Your task to perform on an android device: toggle pop-ups in chrome Image 0: 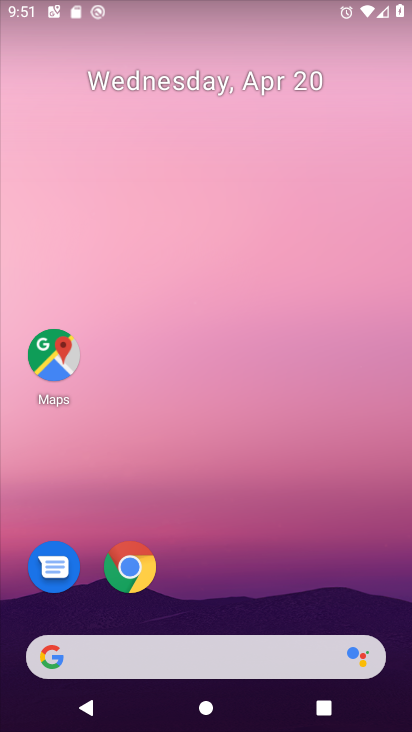
Step 0: drag from (350, 584) to (315, 183)
Your task to perform on an android device: toggle pop-ups in chrome Image 1: 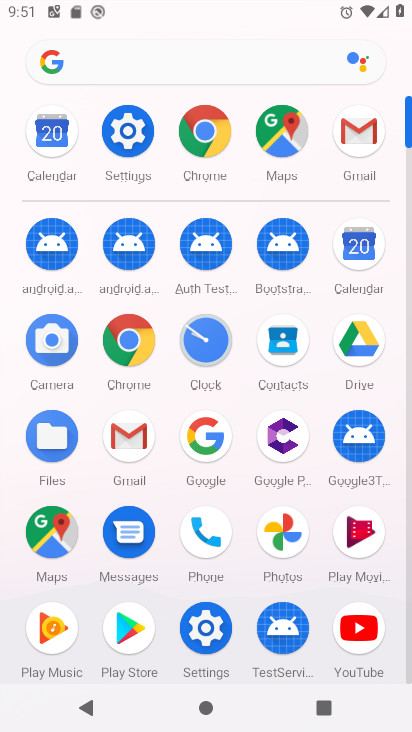
Step 1: click (138, 350)
Your task to perform on an android device: toggle pop-ups in chrome Image 2: 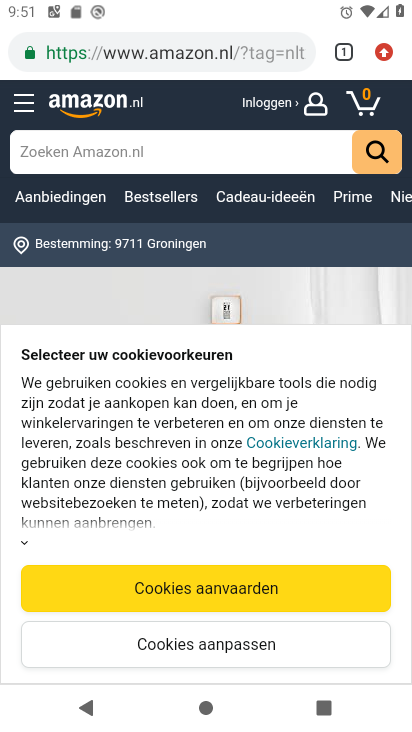
Step 2: click (384, 48)
Your task to perform on an android device: toggle pop-ups in chrome Image 3: 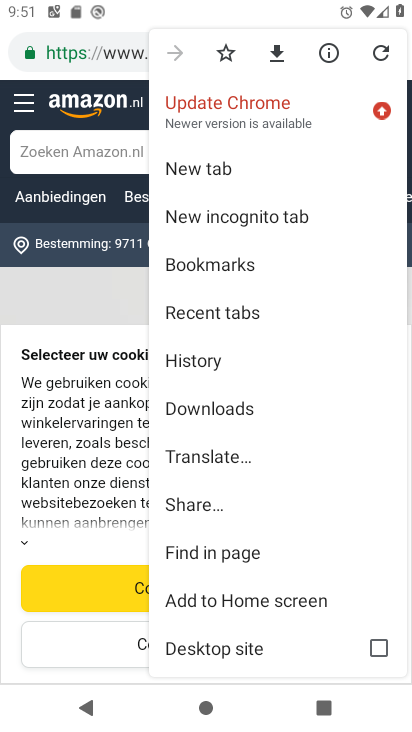
Step 3: drag from (351, 565) to (345, 362)
Your task to perform on an android device: toggle pop-ups in chrome Image 4: 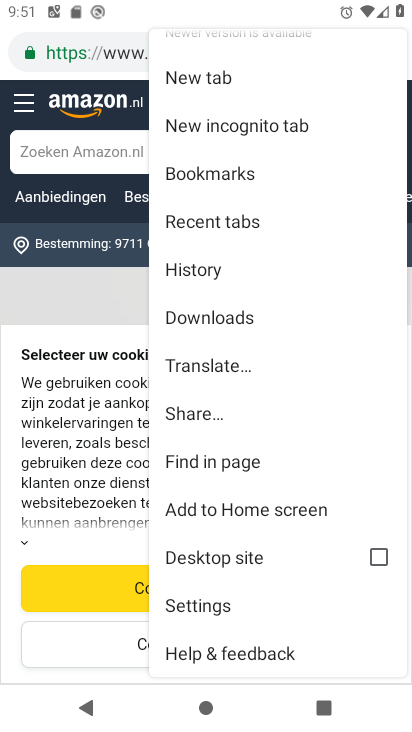
Step 4: click (230, 612)
Your task to perform on an android device: toggle pop-ups in chrome Image 5: 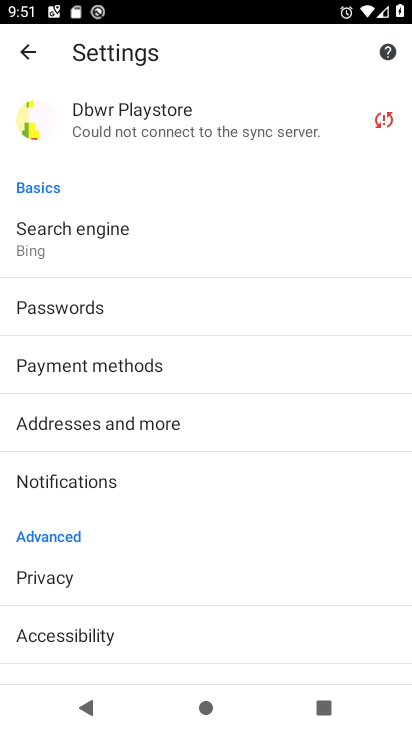
Step 5: drag from (279, 567) to (286, 412)
Your task to perform on an android device: toggle pop-ups in chrome Image 6: 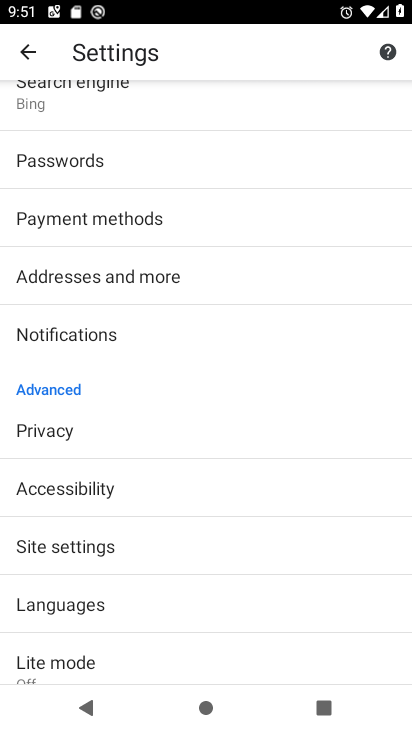
Step 6: drag from (284, 568) to (302, 437)
Your task to perform on an android device: toggle pop-ups in chrome Image 7: 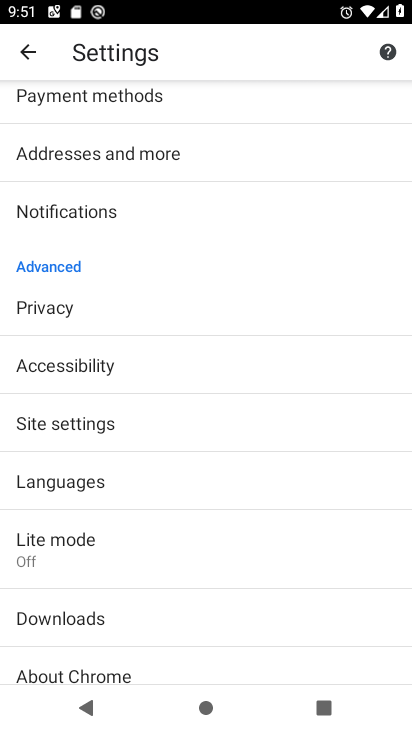
Step 7: drag from (309, 539) to (319, 472)
Your task to perform on an android device: toggle pop-ups in chrome Image 8: 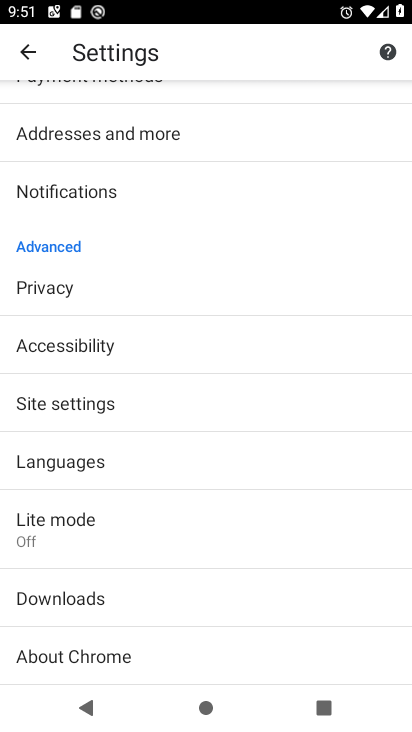
Step 8: drag from (287, 554) to (305, 331)
Your task to perform on an android device: toggle pop-ups in chrome Image 9: 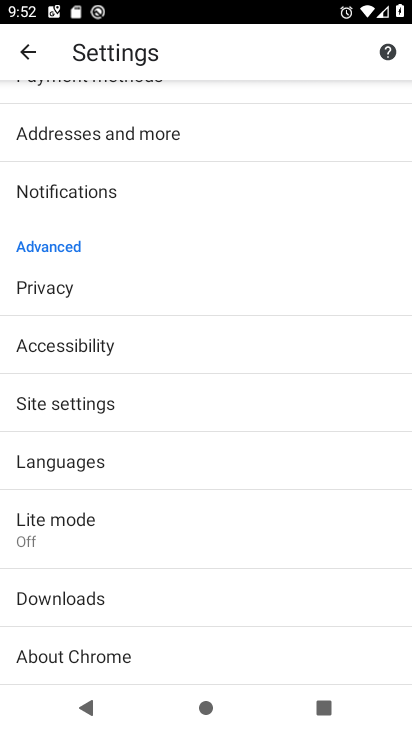
Step 9: click (219, 406)
Your task to perform on an android device: toggle pop-ups in chrome Image 10: 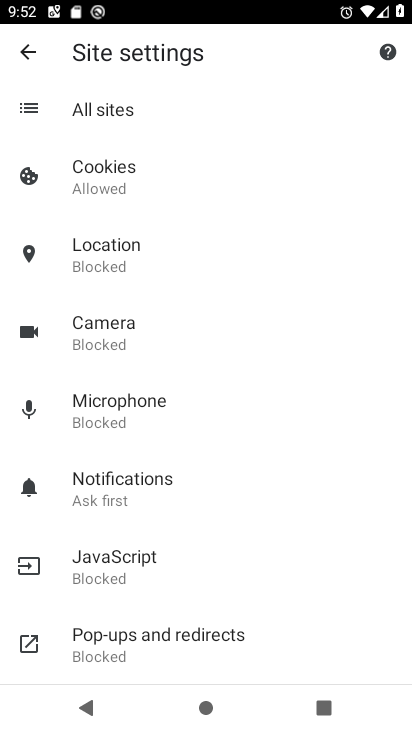
Step 10: drag from (283, 503) to (289, 317)
Your task to perform on an android device: toggle pop-ups in chrome Image 11: 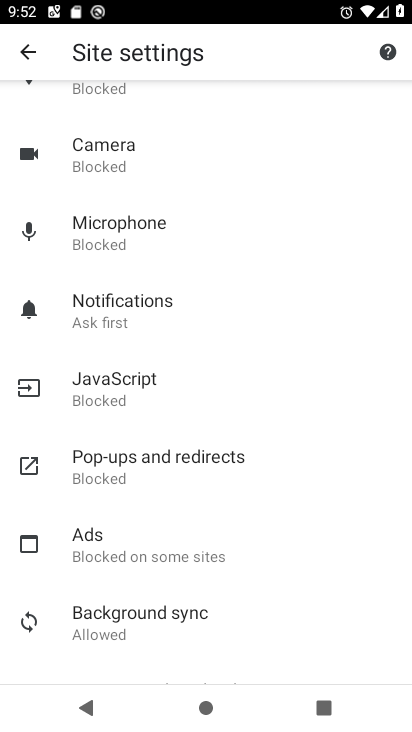
Step 11: drag from (310, 577) to (299, 370)
Your task to perform on an android device: toggle pop-ups in chrome Image 12: 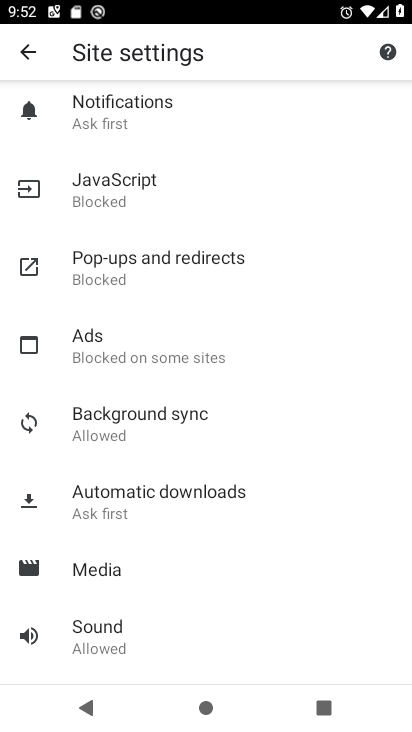
Step 12: drag from (316, 315) to (318, 453)
Your task to perform on an android device: toggle pop-ups in chrome Image 13: 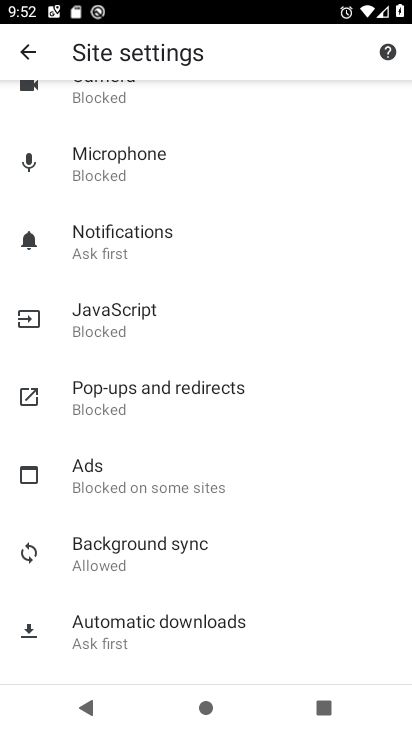
Step 13: click (195, 398)
Your task to perform on an android device: toggle pop-ups in chrome Image 14: 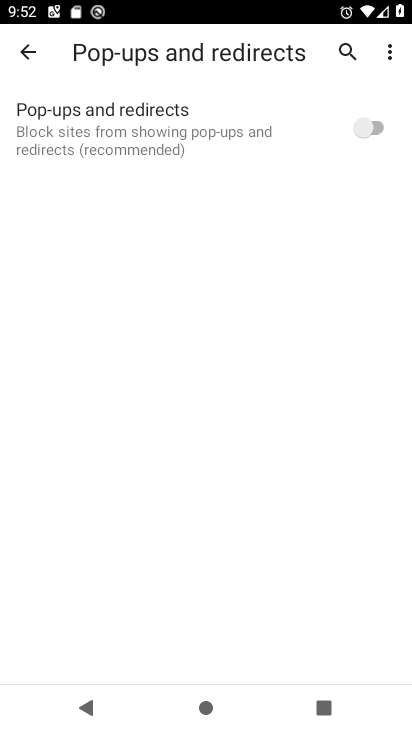
Step 14: task complete